Your task to perform on an android device: open app "Roku - Official Remote Control" (install if not already installed) Image 0: 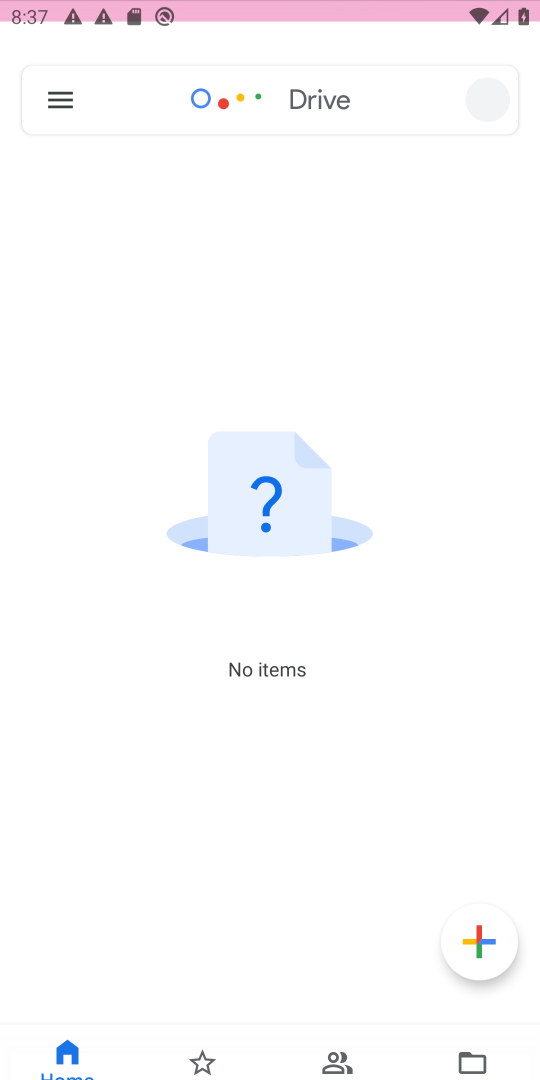
Step 0: press home button
Your task to perform on an android device: open app "Roku - Official Remote Control" (install if not already installed) Image 1: 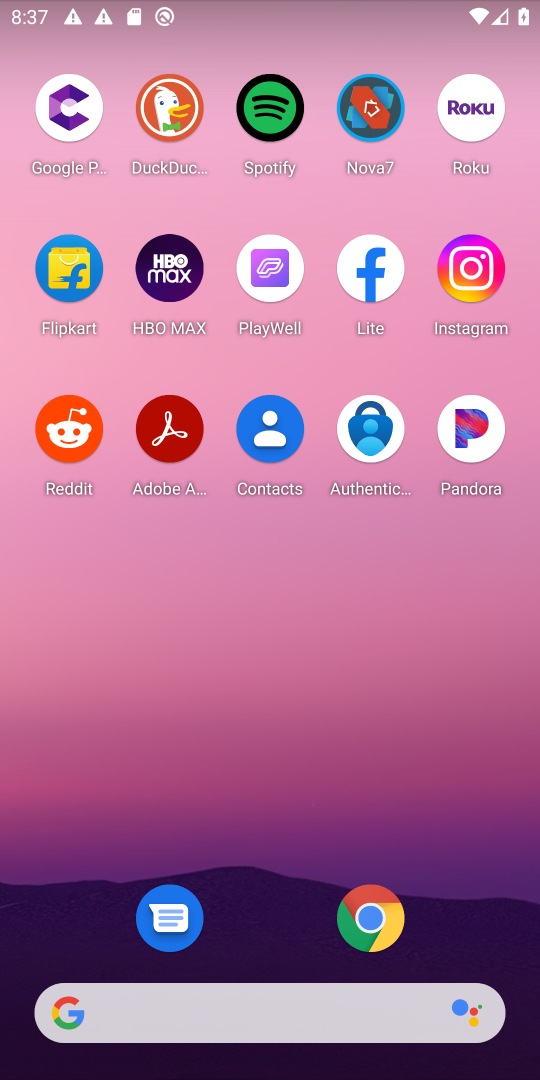
Step 1: click (464, 112)
Your task to perform on an android device: open app "Roku - Official Remote Control" (install if not already installed) Image 2: 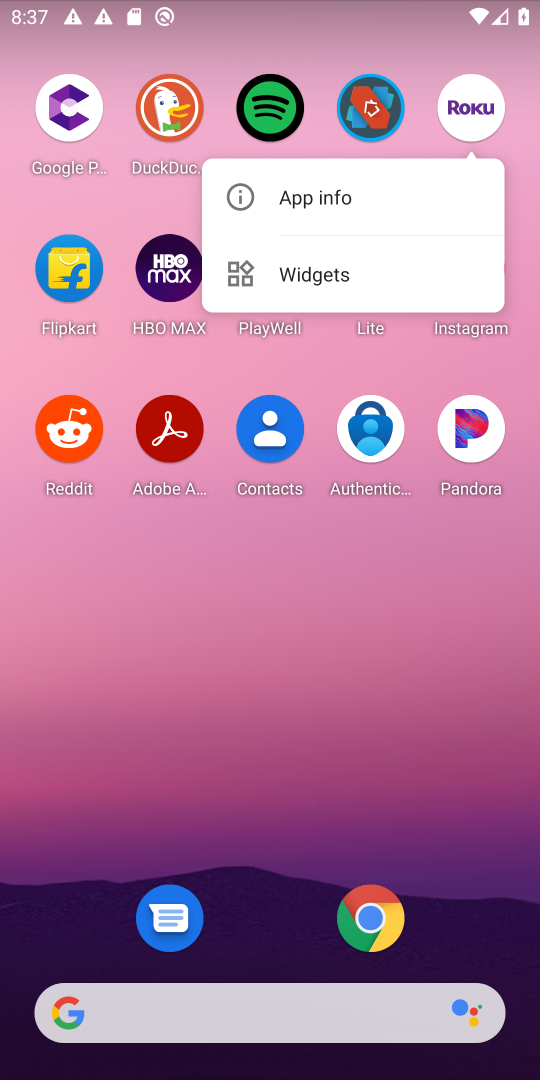
Step 2: click (477, 105)
Your task to perform on an android device: open app "Roku - Official Remote Control" (install if not already installed) Image 3: 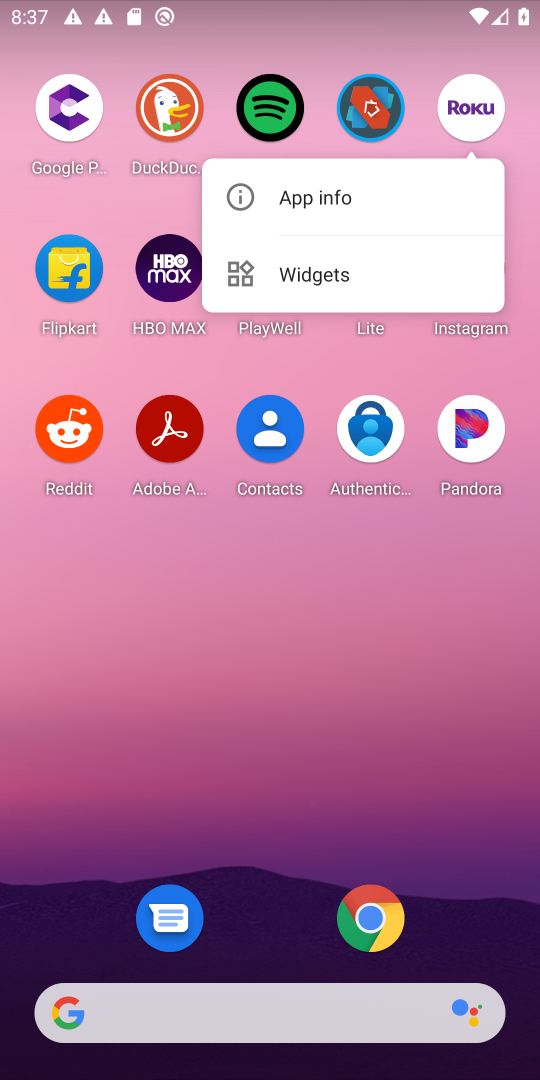
Step 3: click (477, 106)
Your task to perform on an android device: open app "Roku - Official Remote Control" (install if not already installed) Image 4: 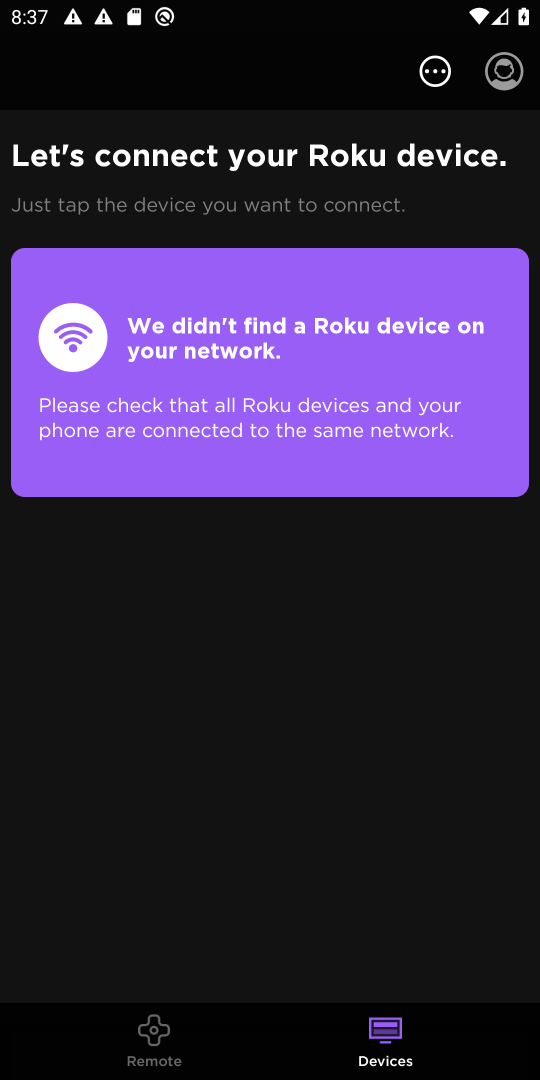
Step 4: task complete